Your task to perform on an android device: open app "DoorDash - Dasher" (install if not already installed) Image 0: 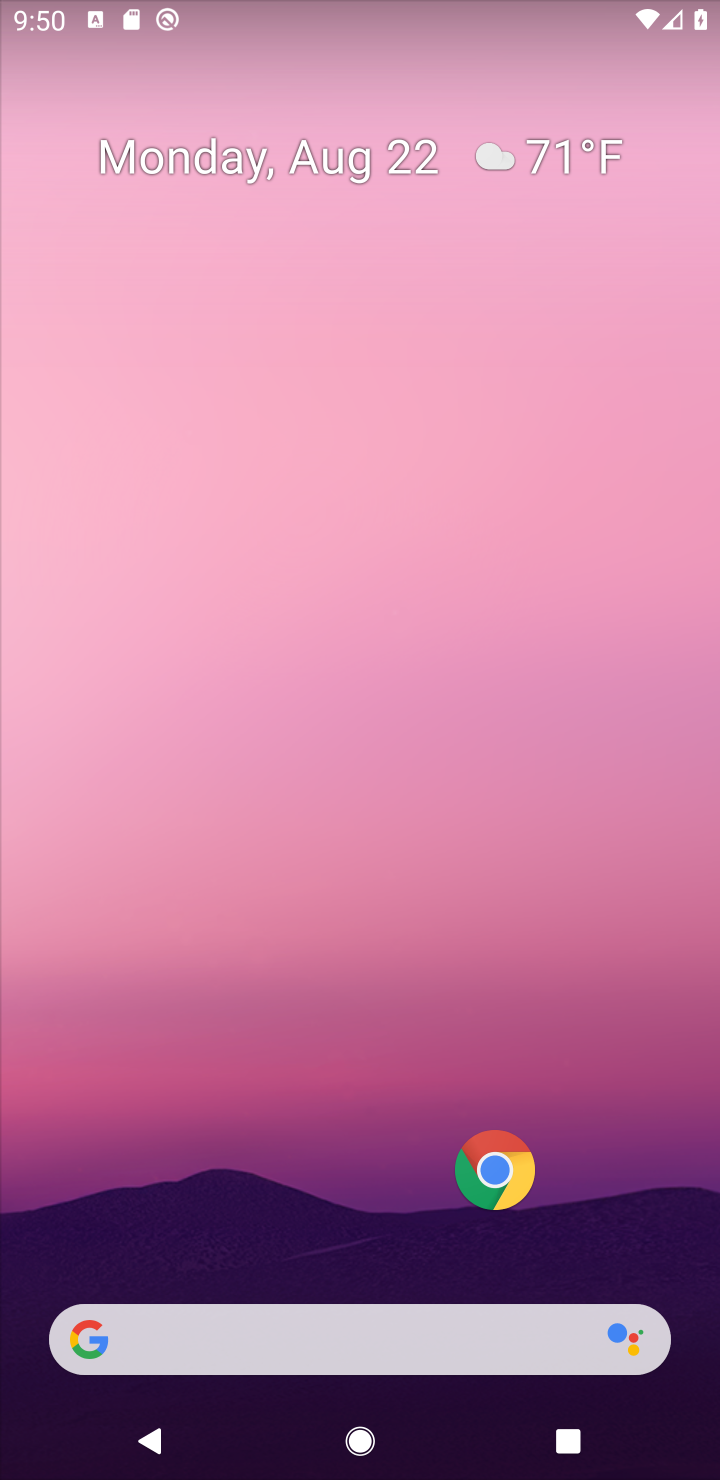
Step 0: drag from (267, 1258) to (450, 231)
Your task to perform on an android device: open app "DoorDash - Dasher" (install if not already installed) Image 1: 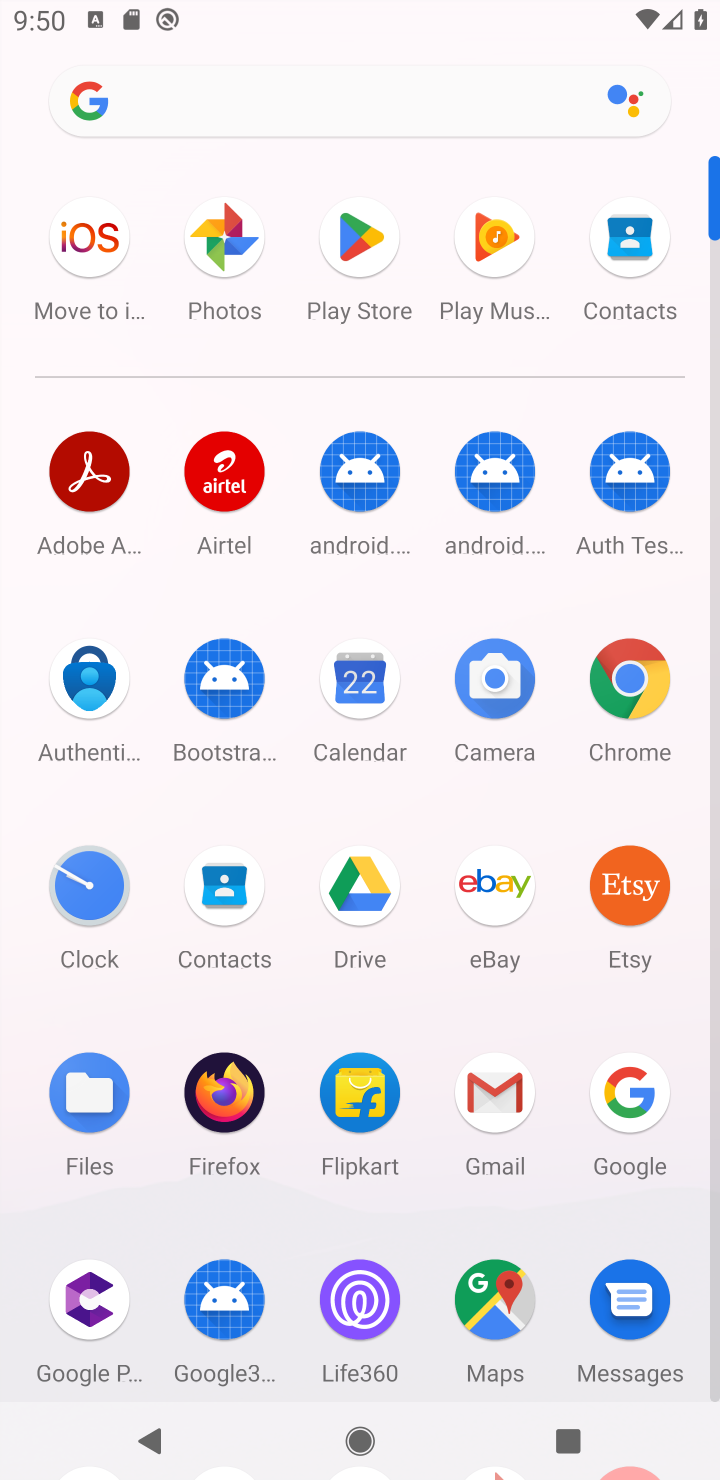
Step 1: click (369, 242)
Your task to perform on an android device: open app "DoorDash - Dasher" (install if not already installed) Image 2: 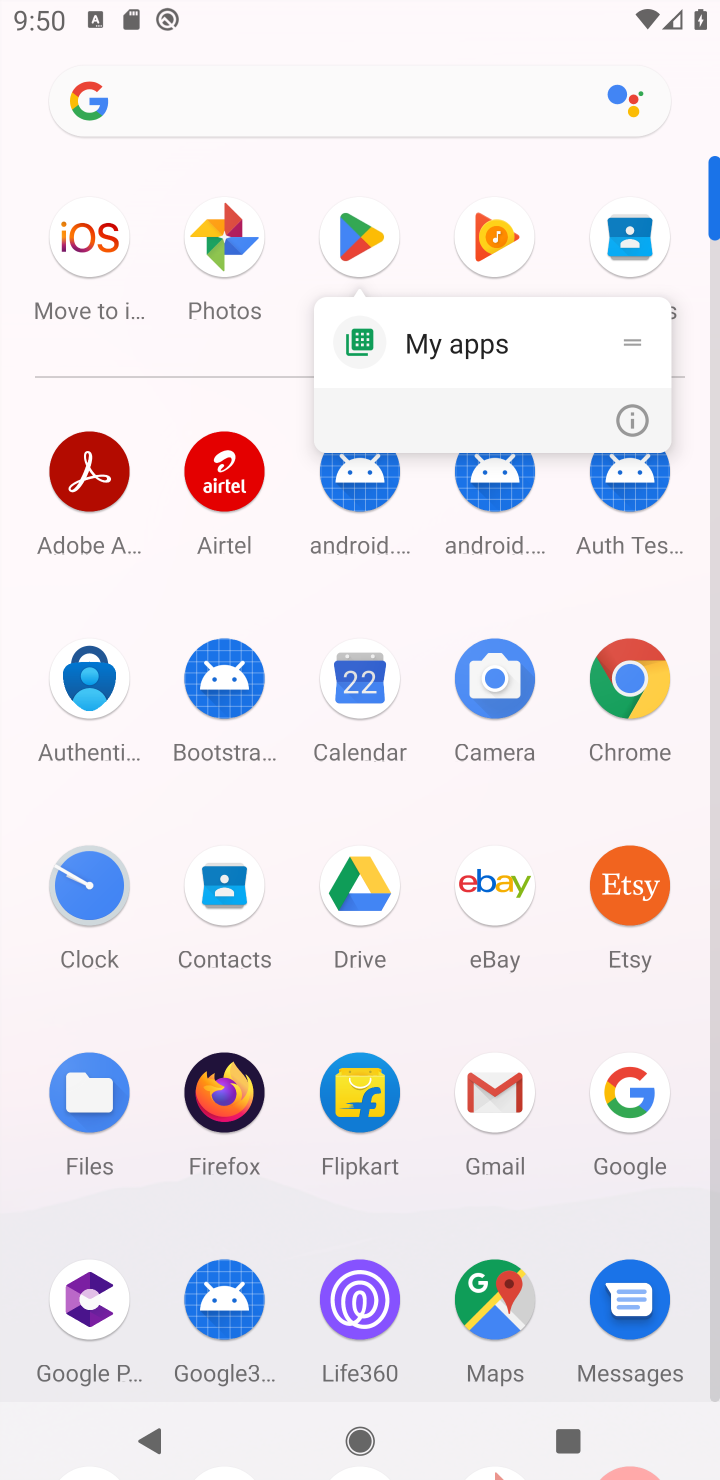
Step 2: click (341, 225)
Your task to perform on an android device: open app "DoorDash - Dasher" (install if not already installed) Image 3: 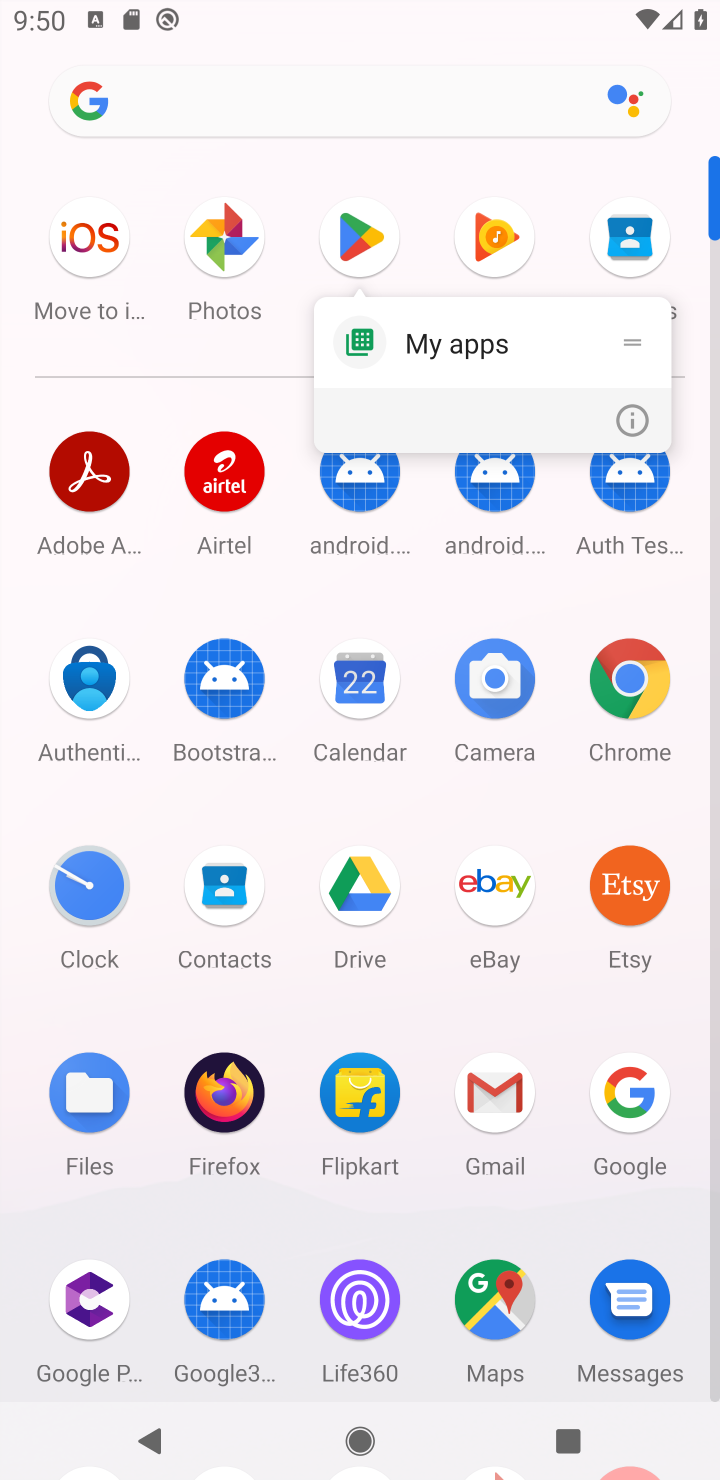
Step 3: click (370, 231)
Your task to perform on an android device: open app "DoorDash - Dasher" (install if not already installed) Image 4: 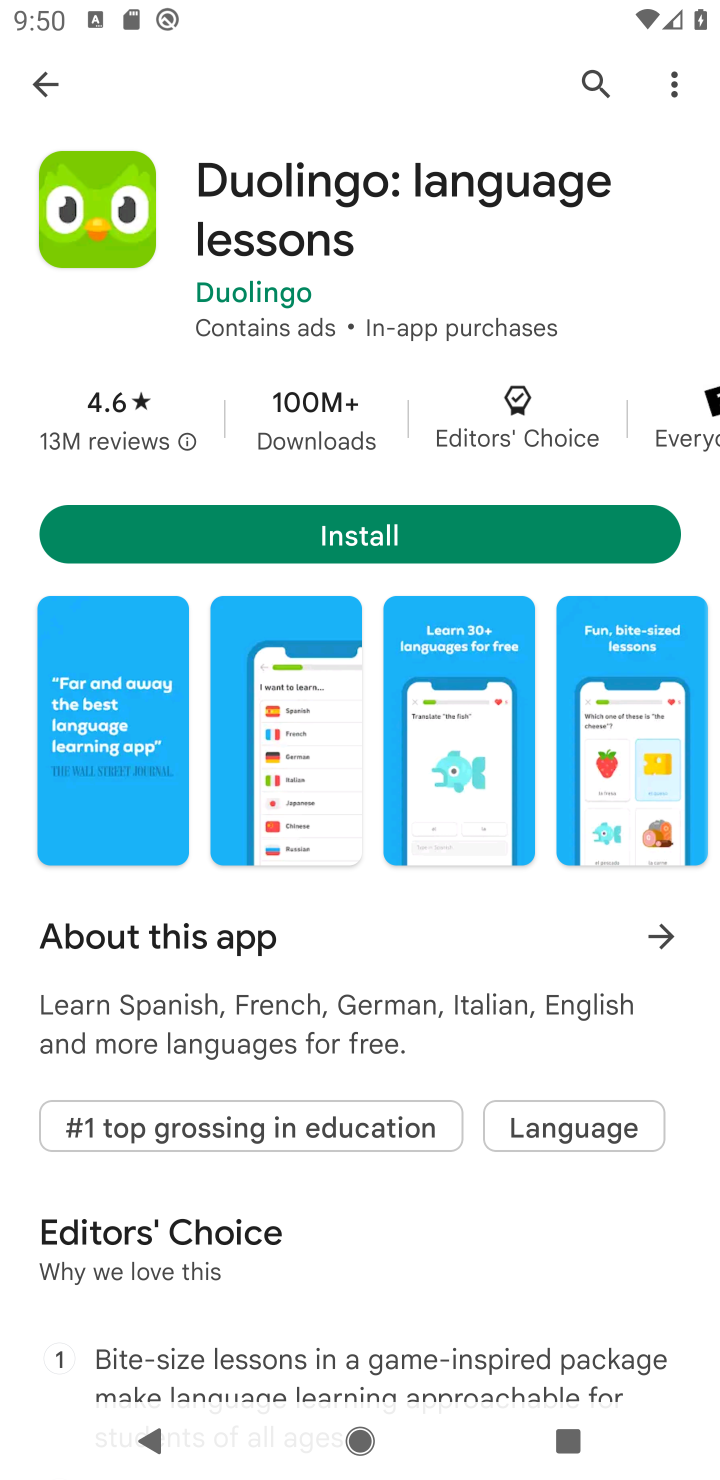
Step 4: click (577, 73)
Your task to perform on an android device: open app "DoorDash - Dasher" (install if not already installed) Image 5: 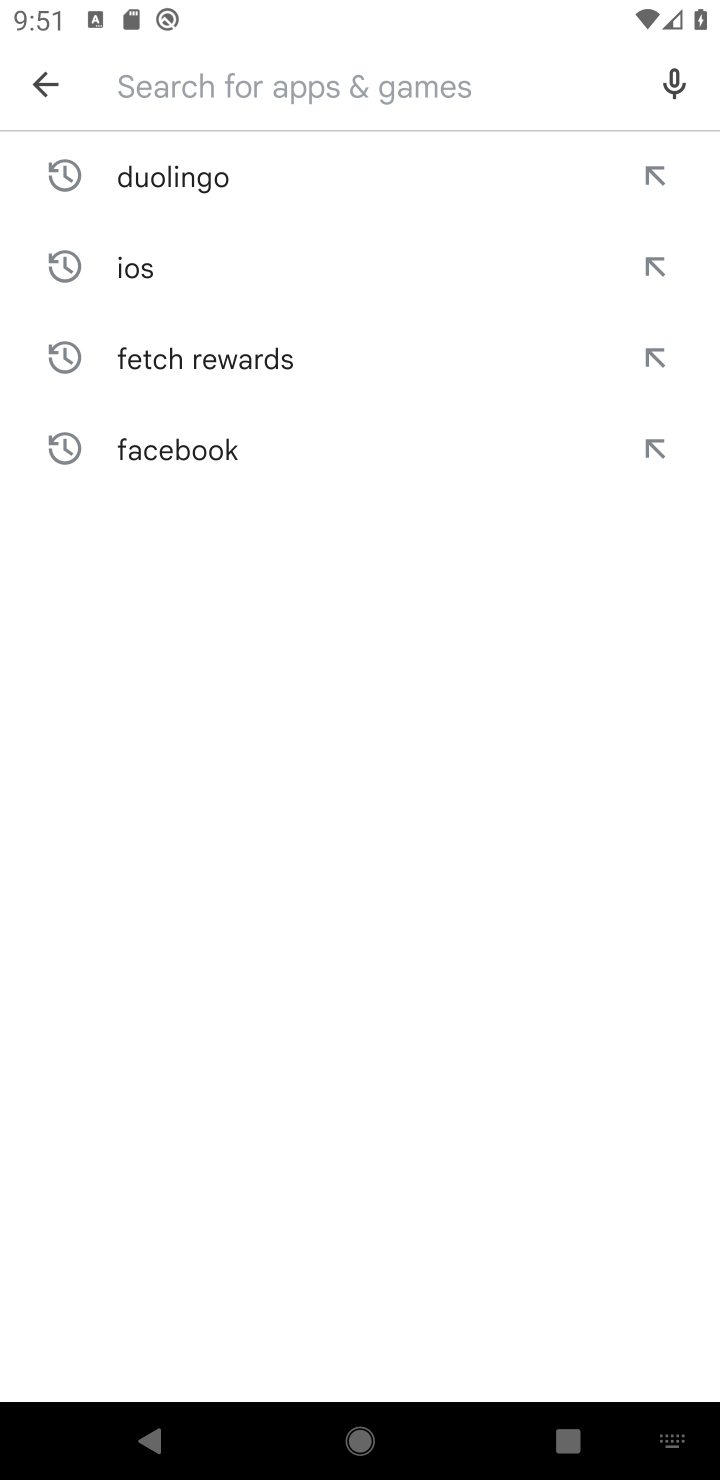
Step 5: click (186, 71)
Your task to perform on an android device: open app "DoorDash - Dasher" (install if not already installed) Image 6: 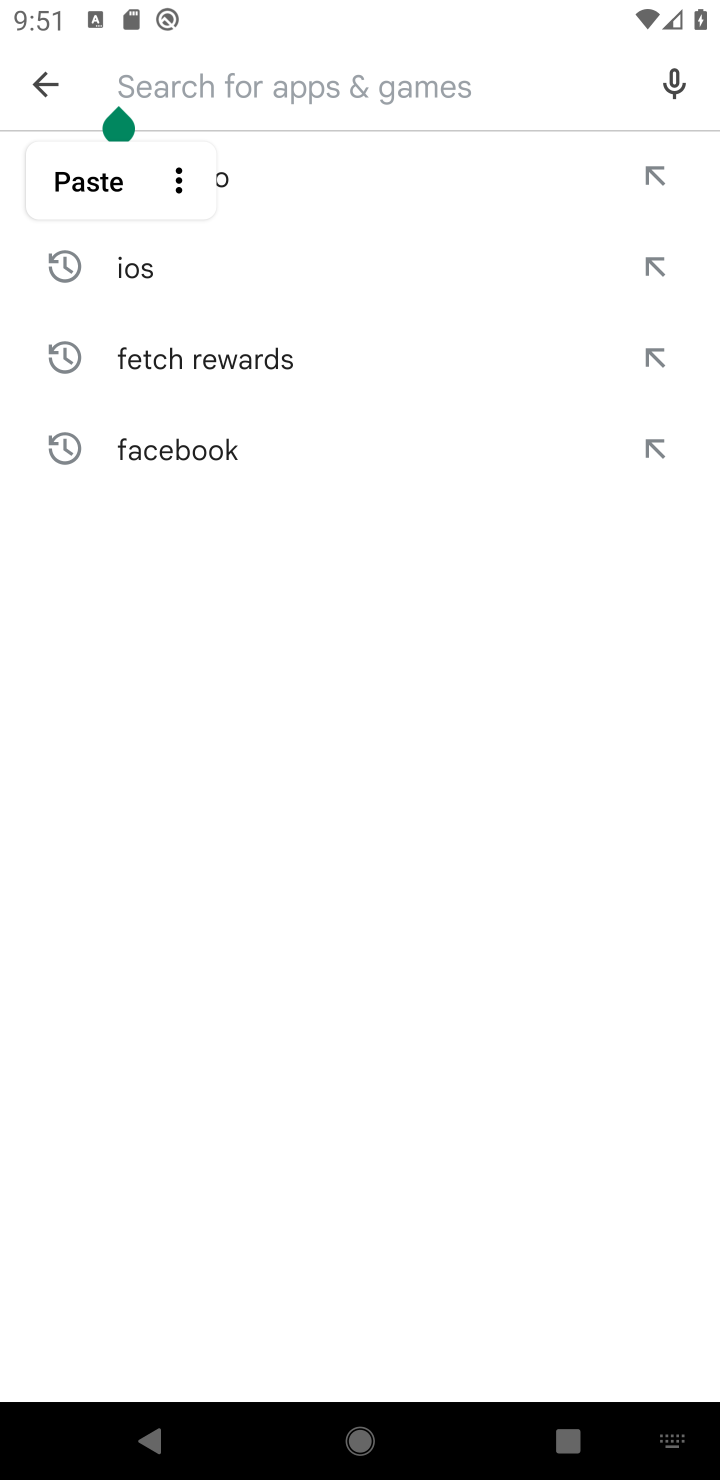
Step 6: type "DoorDash"
Your task to perform on an android device: open app "DoorDash - Dasher" (install if not already installed) Image 7: 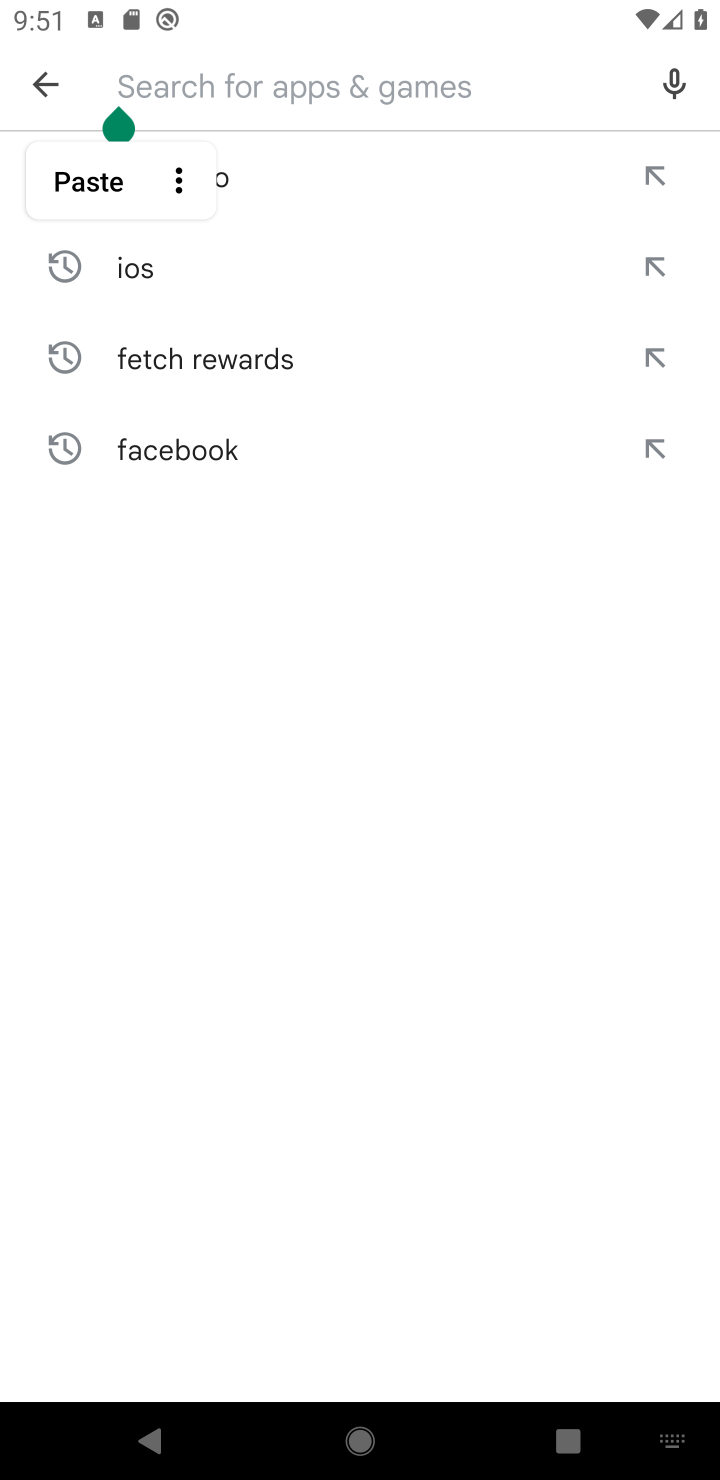
Step 7: click (420, 859)
Your task to perform on an android device: open app "DoorDash - Dasher" (install if not already installed) Image 8: 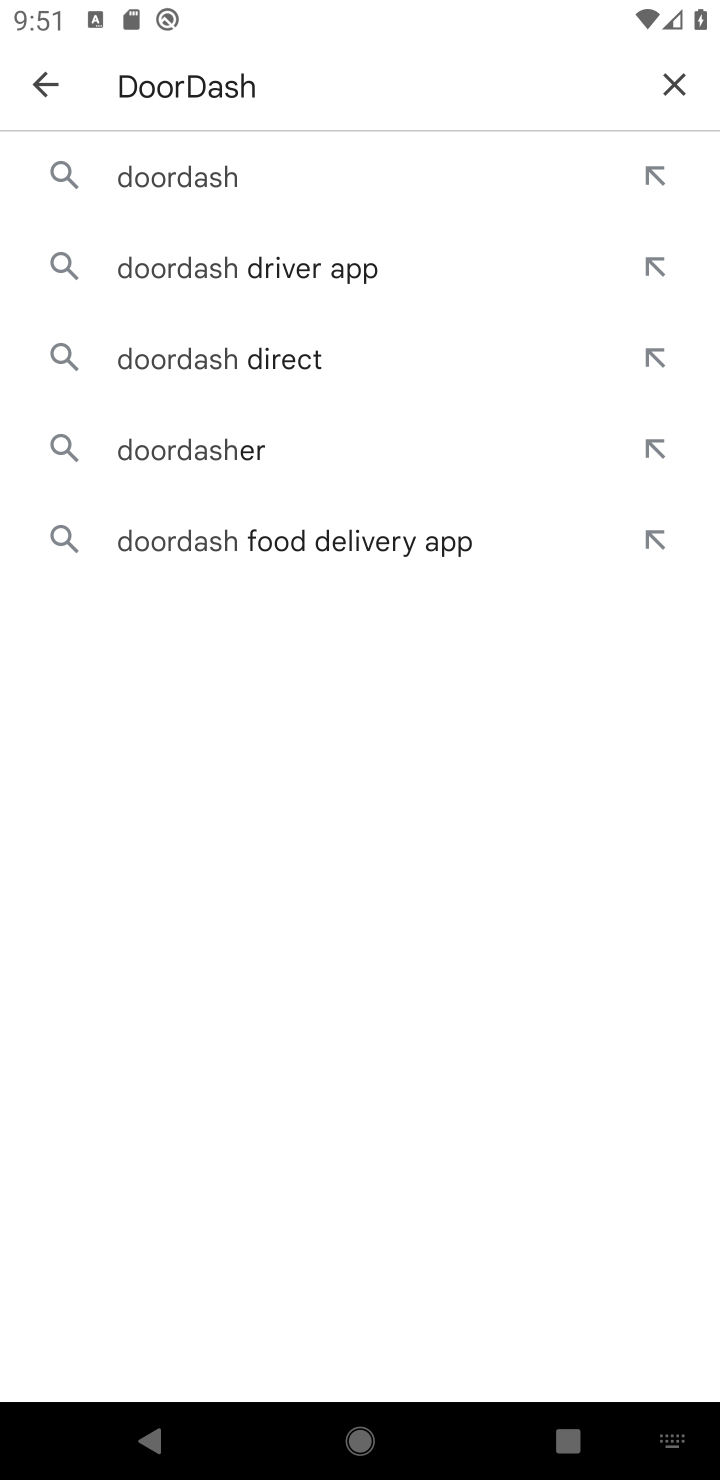
Step 8: click (185, 178)
Your task to perform on an android device: open app "DoorDash - Dasher" (install if not already installed) Image 9: 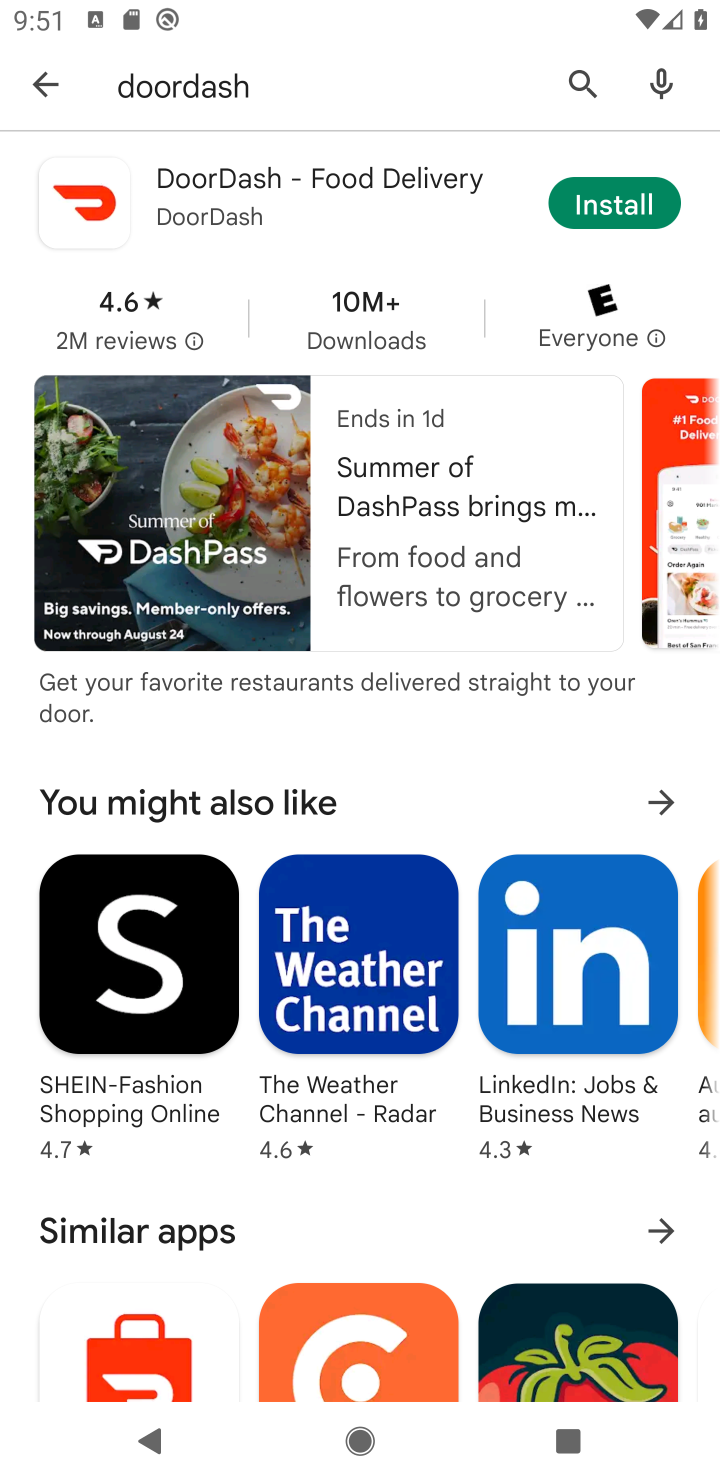
Step 9: click (118, 1357)
Your task to perform on an android device: open app "DoorDash - Dasher" (install if not already installed) Image 10: 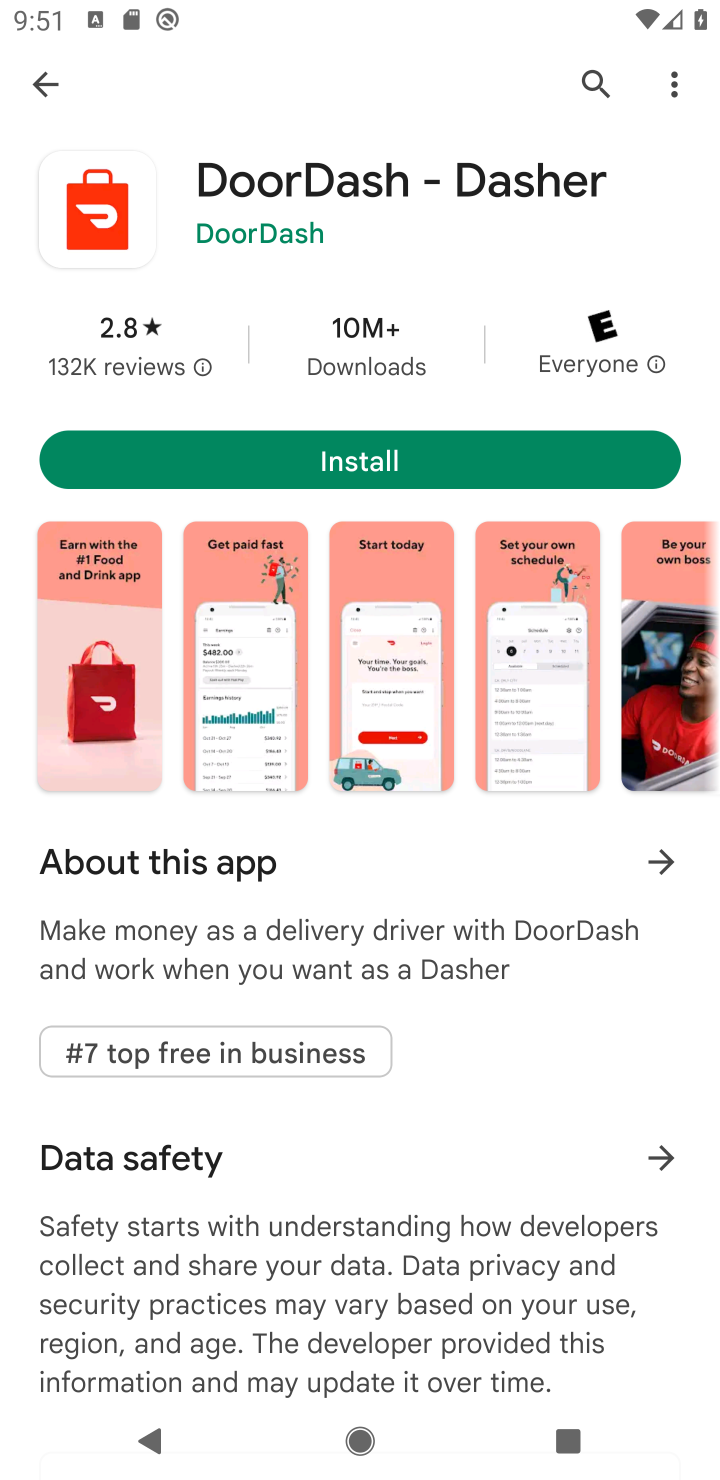
Step 10: click (365, 457)
Your task to perform on an android device: open app "DoorDash - Dasher" (install if not already installed) Image 11: 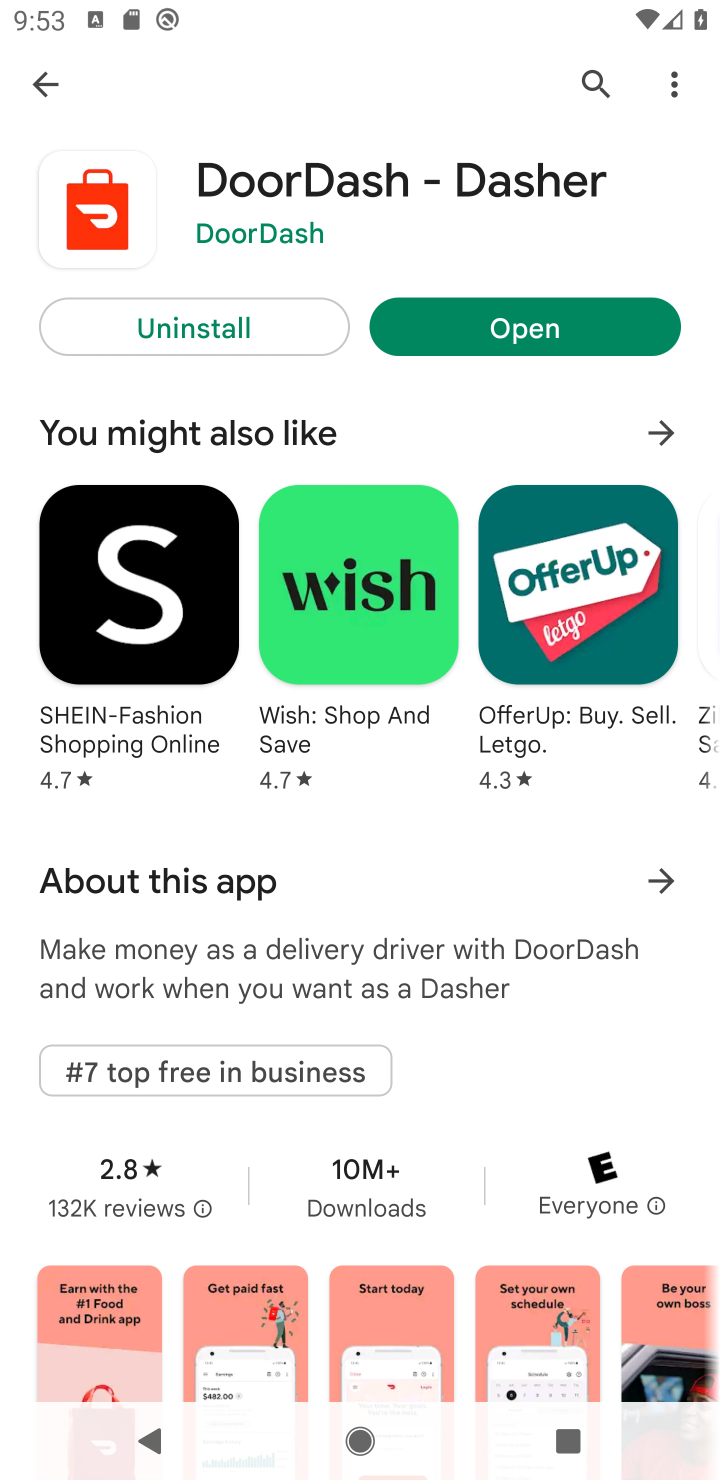
Step 11: click (524, 330)
Your task to perform on an android device: open app "DoorDash - Dasher" (install if not already installed) Image 12: 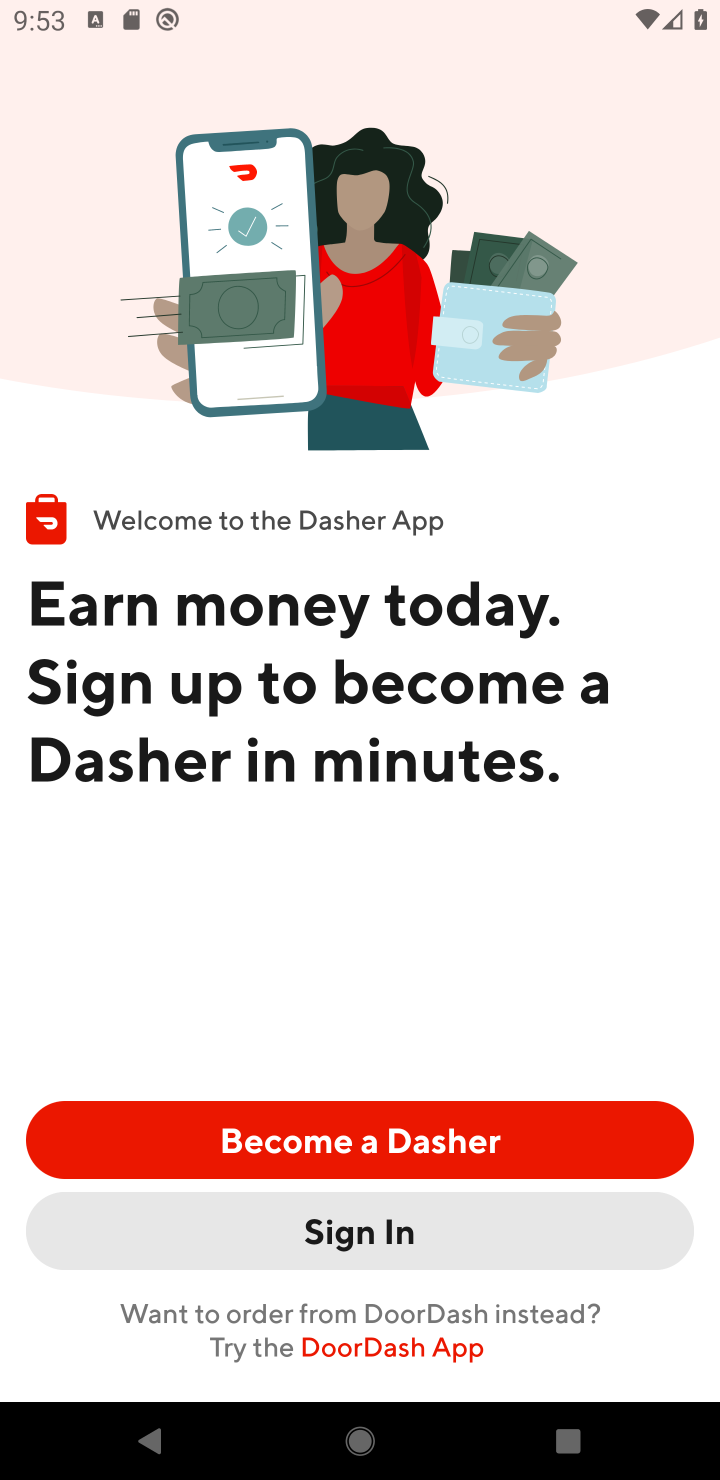
Step 12: task complete